Your task to perform on an android device: Open calendar and show me the second week of next month Image 0: 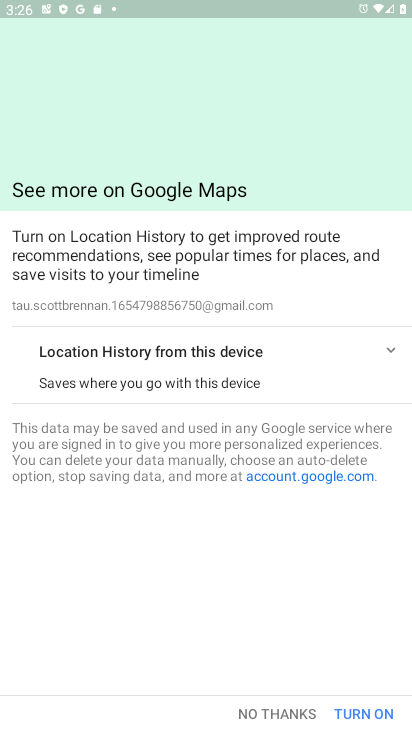
Step 0: press home button
Your task to perform on an android device: Open calendar and show me the second week of next month Image 1: 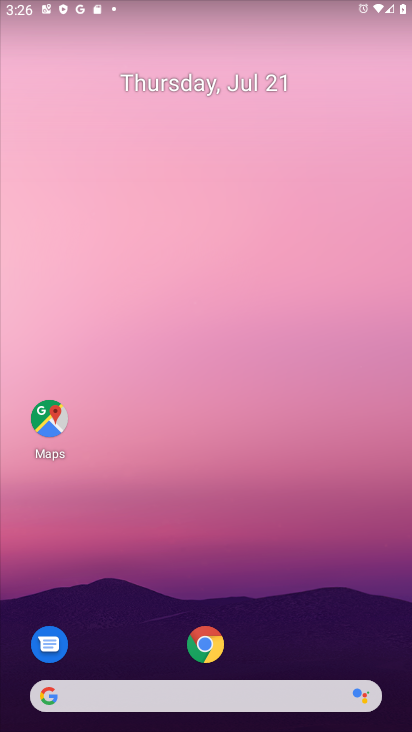
Step 1: drag from (329, 645) to (259, 0)
Your task to perform on an android device: Open calendar and show me the second week of next month Image 2: 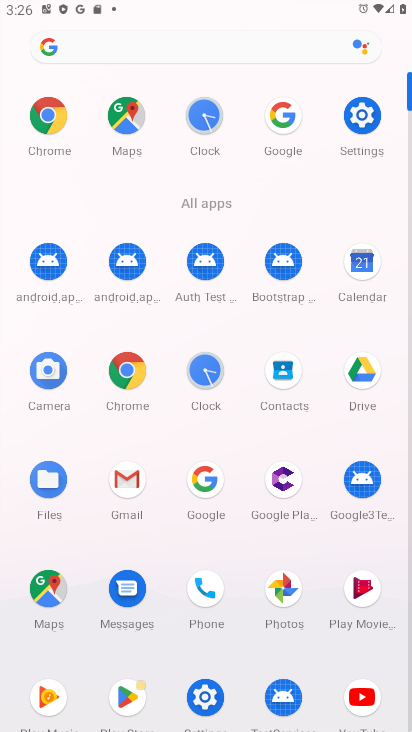
Step 2: click (371, 263)
Your task to perform on an android device: Open calendar and show me the second week of next month Image 3: 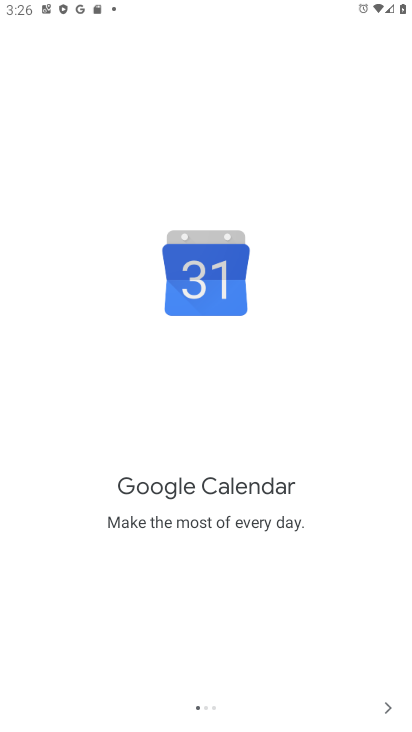
Step 3: click (386, 708)
Your task to perform on an android device: Open calendar and show me the second week of next month Image 4: 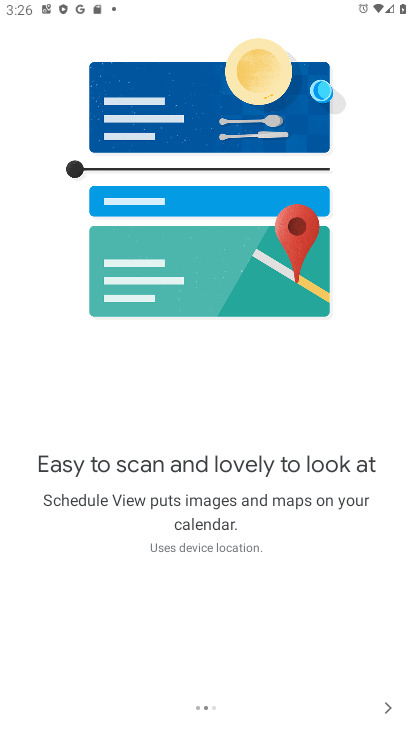
Step 4: click (386, 708)
Your task to perform on an android device: Open calendar and show me the second week of next month Image 5: 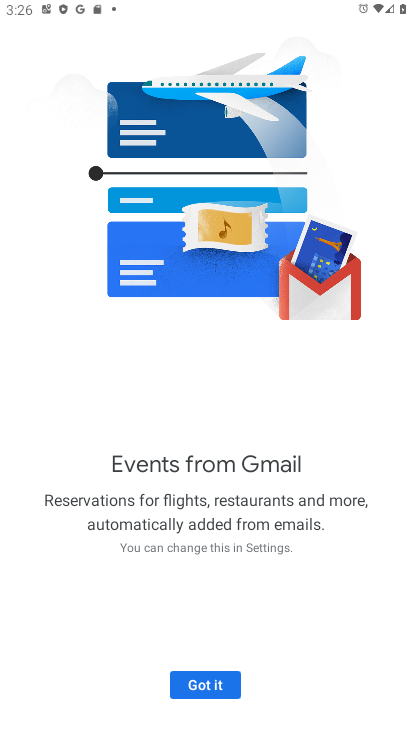
Step 5: click (386, 708)
Your task to perform on an android device: Open calendar and show me the second week of next month Image 6: 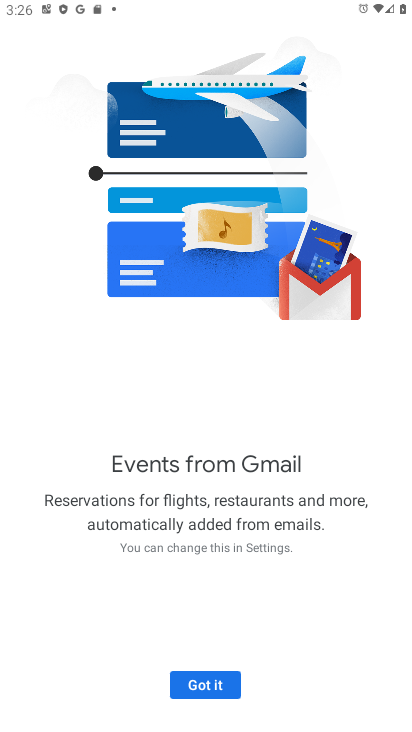
Step 6: click (209, 684)
Your task to perform on an android device: Open calendar and show me the second week of next month Image 7: 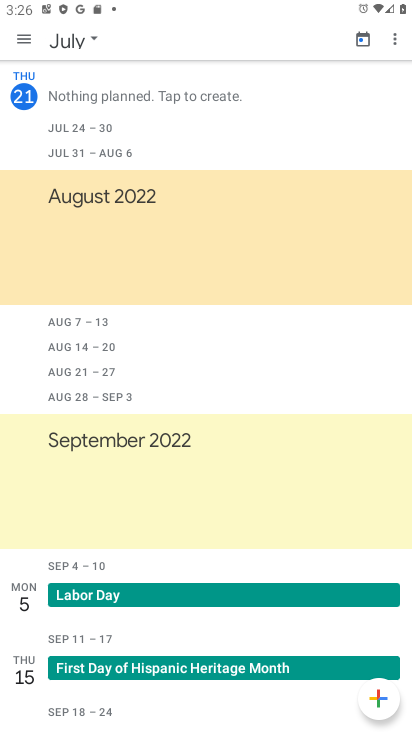
Step 7: click (21, 39)
Your task to perform on an android device: Open calendar and show me the second week of next month Image 8: 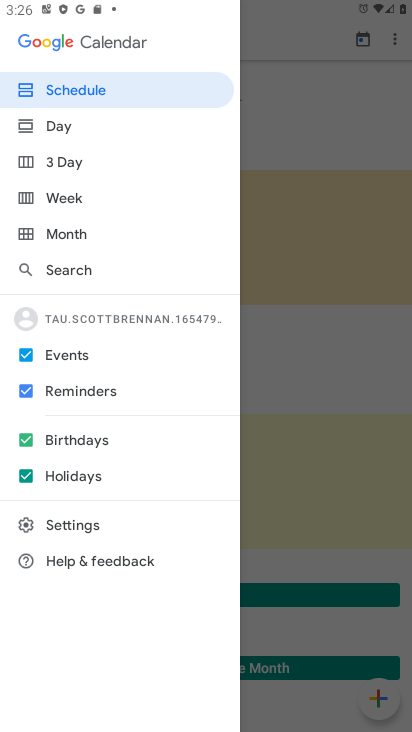
Step 8: click (62, 233)
Your task to perform on an android device: Open calendar and show me the second week of next month Image 9: 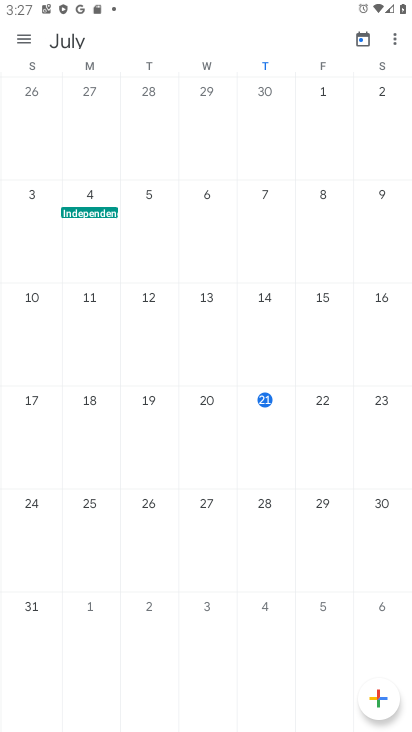
Step 9: task complete